Your task to perform on an android device: Open the Play Movies app and select the watchlist tab. Image 0: 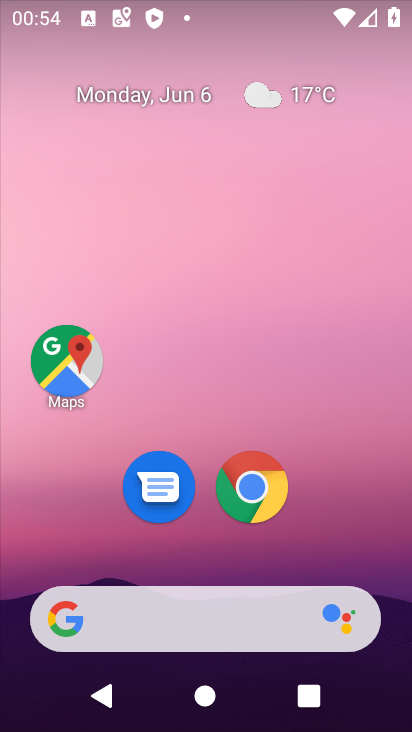
Step 0: drag from (394, 619) to (272, 92)
Your task to perform on an android device: Open the Play Movies app and select the watchlist tab. Image 1: 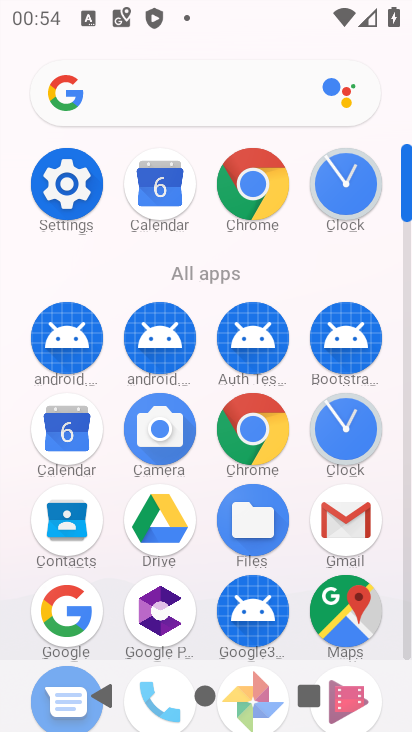
Step 1: click (409, 646)
Your task to perform on an android device: Open the Play Movies app and select the watchlist tab. Image 2: 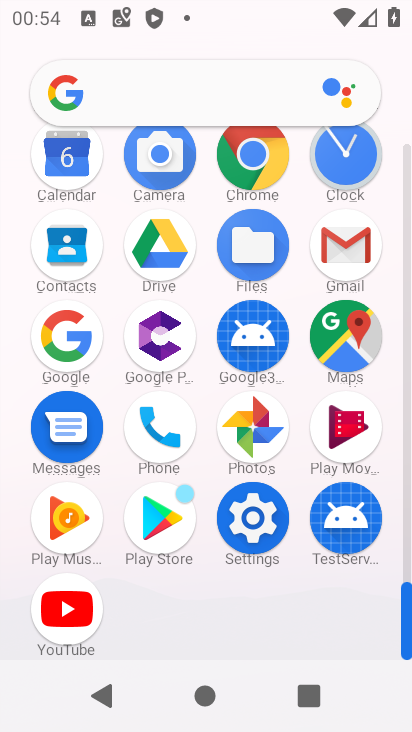
Step 2: click (342, 428)
Your task to perform on an android device: Open the Play Movies app and select the watchlist tab. Image 3: 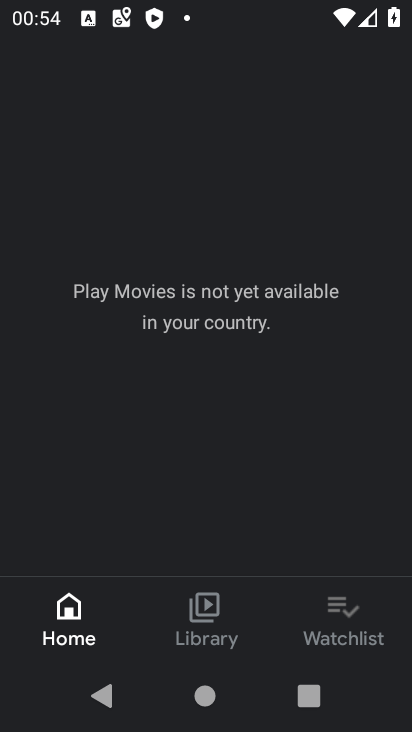
Step 3: click (334, 617)
Your task to perform on an android device: Open the Play Movies app and select the watchlist tab. Image 4: 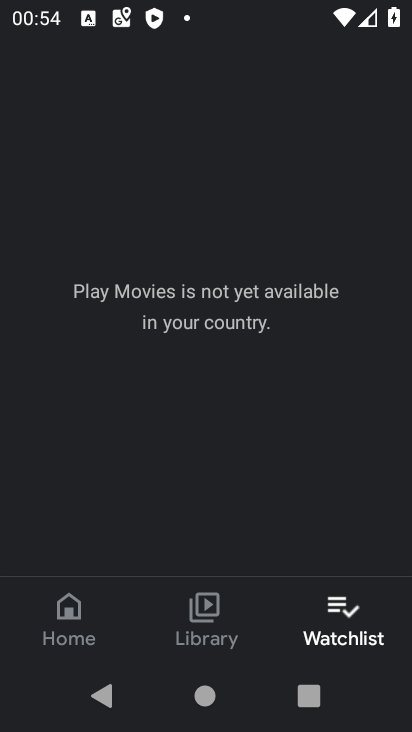
Step 4: task complete